Your task to perform on an android device: Open maps Image 0: 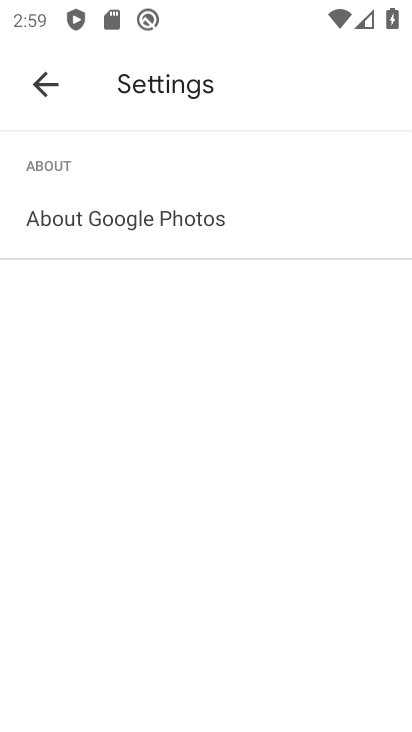
Step 0: press home button
Your task to perform on an android device: Open maps Image 1: 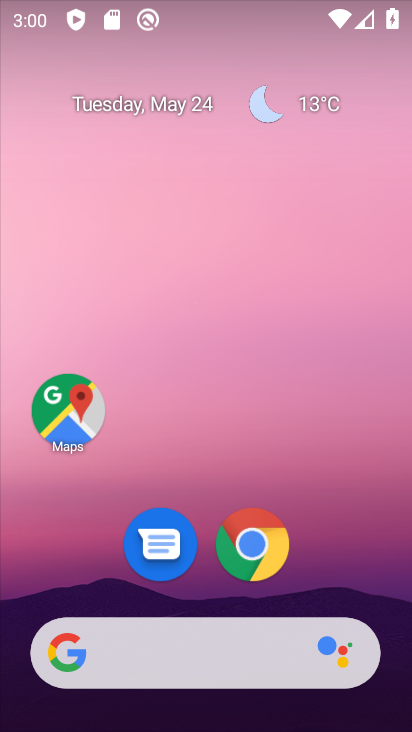
Step 1: drag from (329, 560) to (293, 0)
Your task to perform on an android device: Open maps Image 2: 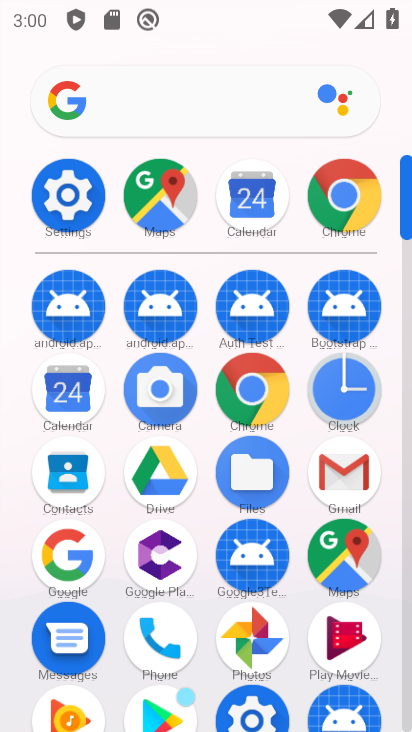
Step 2: click (352, 553)
Your task to perform on an android device: Open maps Image 3: 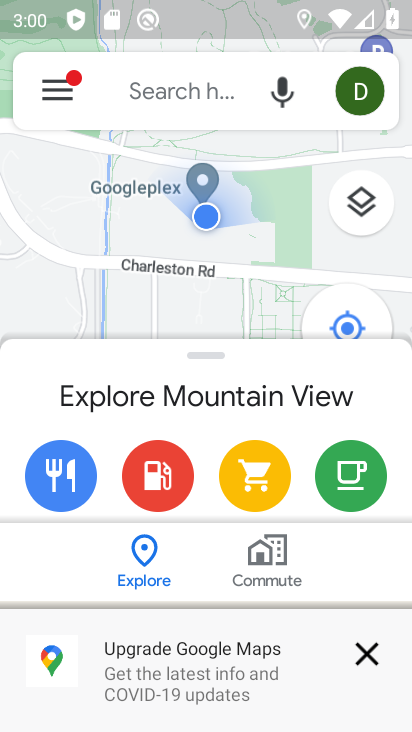
Step 3: task complete